Your task to perform on an android device: change notification settings in the gmail app Image 0: 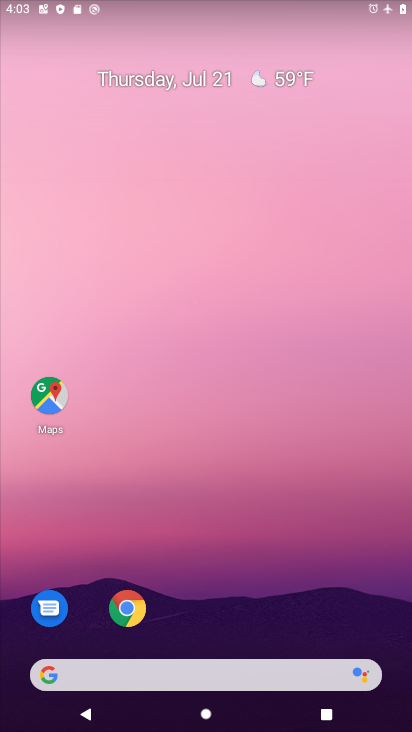
Step 0: drag from (311, 640) to (348, 45)
Your task to perform on an android device: change notification settings in the gmail app Image 1: 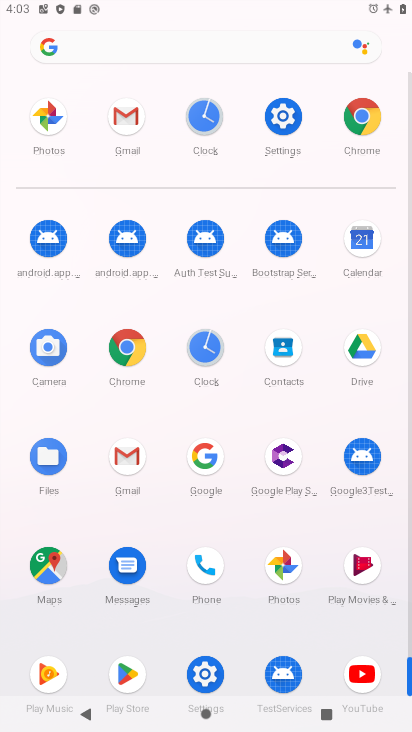
Step 1: click (133, 463)
Your task to perform on an android device: change notification settings in the gmail app Image 2: 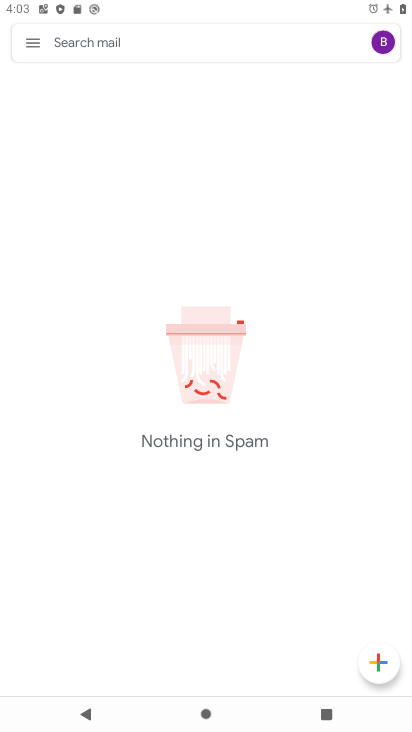
Step 2: click (35, 52)
Your task to perform on an android device: change notification settings in the gmail app Image 3: 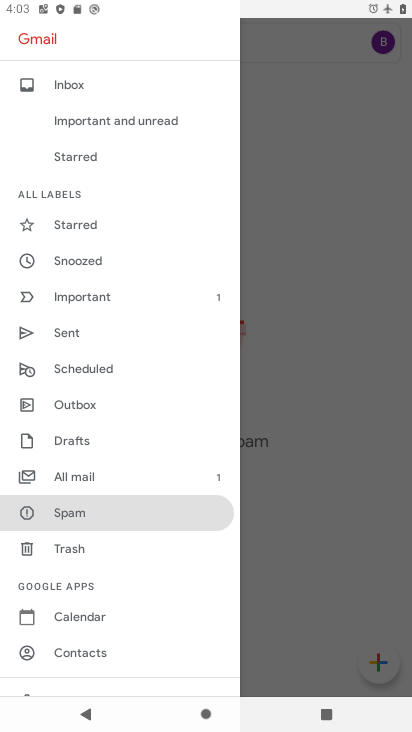
Step 3: drag from (88, 645) to (83, 309)
Your task to perform on an android device: change notification settings in the gmail app Image 4: 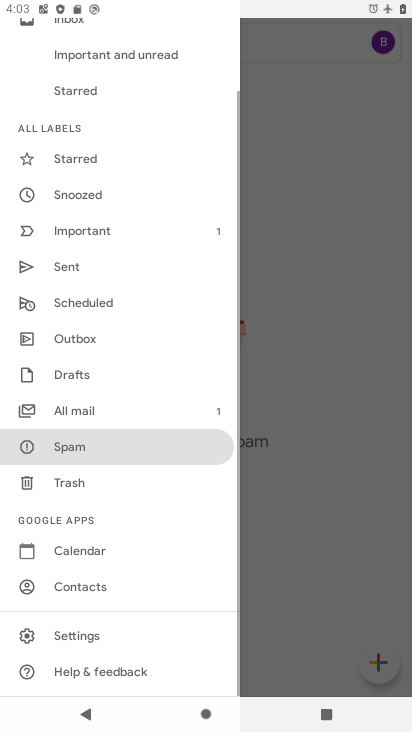
Step 4: click (90, 643)
Your task to perform on an android device: change notification settings in the gmail app Image 5: 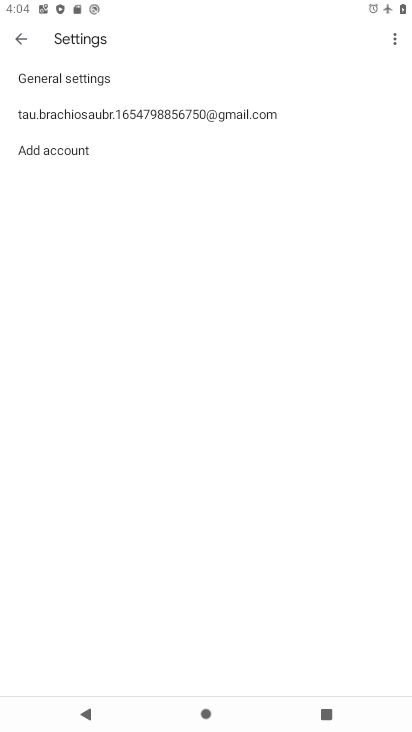
Step 5: click (155, 102)
Your task to perform on an android device: change notification settings in the gmail app Image 6: 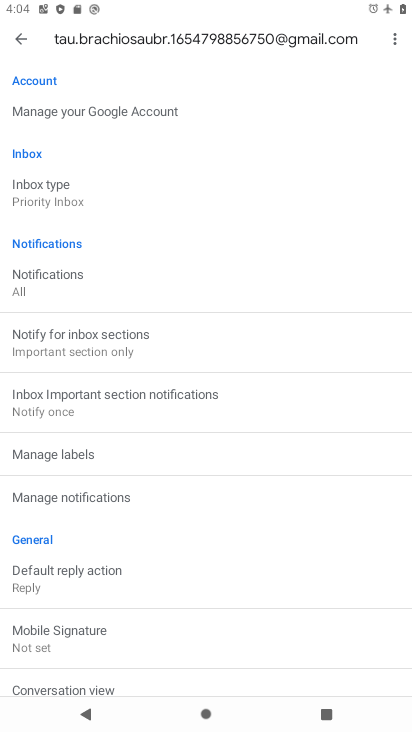
Step 6: click (101, 492)
Your task to perform on an android device: change notification settings in the gmail app Image 7: 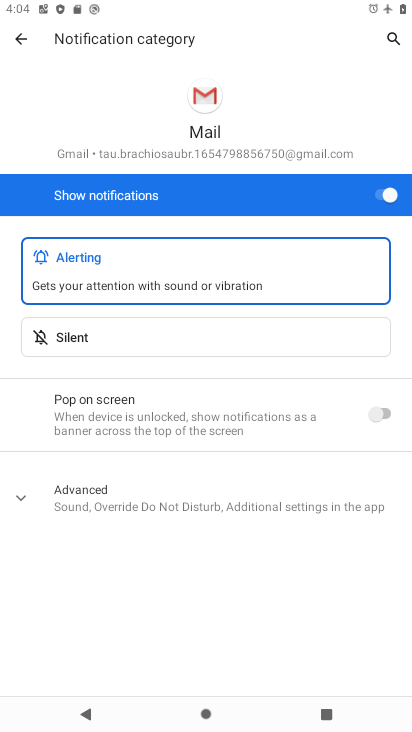
Step 7: click (378, 198)
Your task to perform on an android device: change notification settings in the gmail app Image 8: 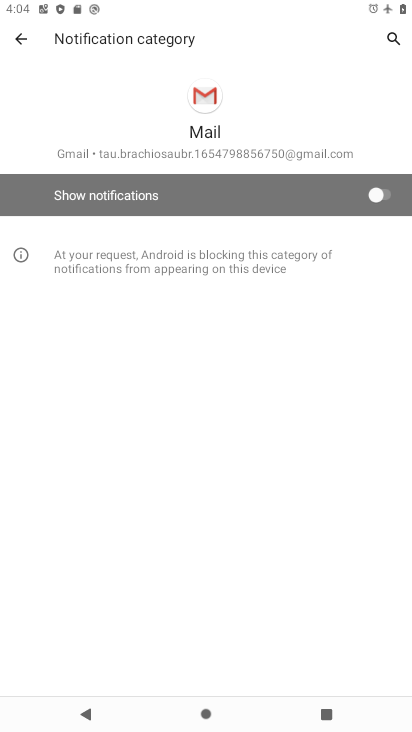
Step 8: task complete